Your task to perform on an android device: turn off airplane mode Image 0: 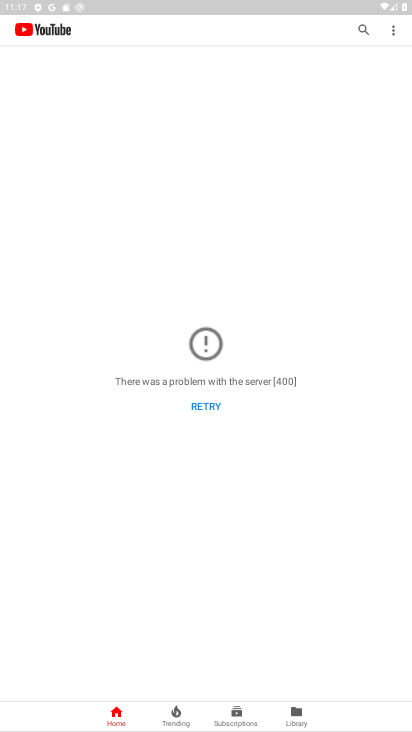
Step 0: press home button
Your task to perform on an android device: turn off airplane mode Image 1: 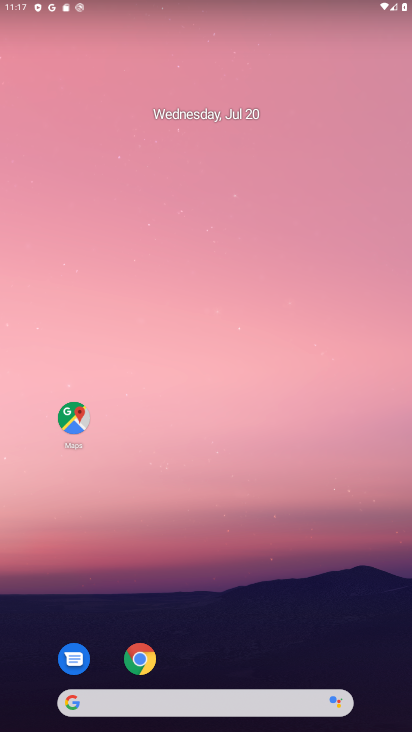
Step 1: drag from (383, 680) to (376, 78)
Your task to perform on an android device: turn off airplane mode Image 2: 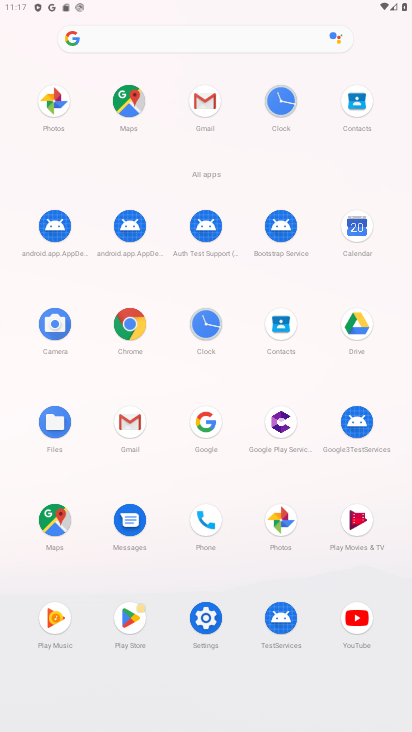
Step 2: click (206, 618)
Your task to perform on an android device: turn off airplane mode Image 3: 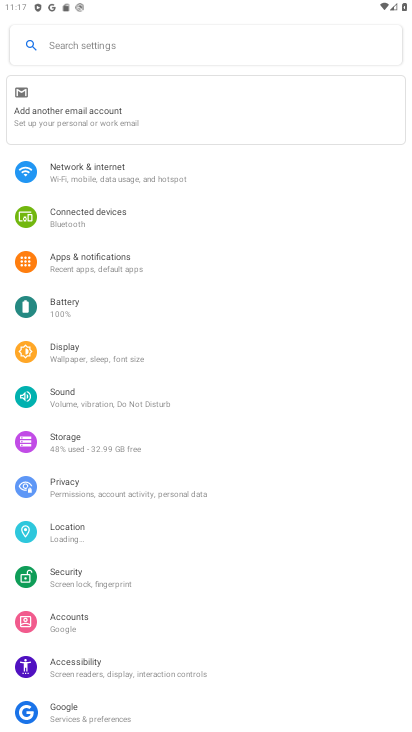
Step 3: click (76, 170)
Your task to perform on an android device: turn off airplane mode Image 4: 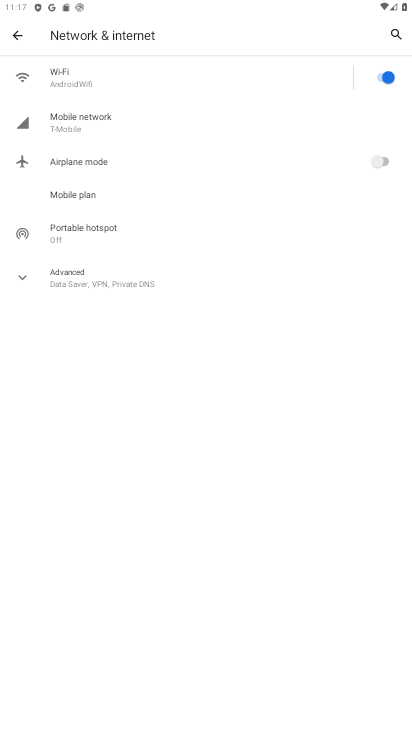
Step 4: task complete